Your task to perform on an android device: What's the weather today? Image 0: 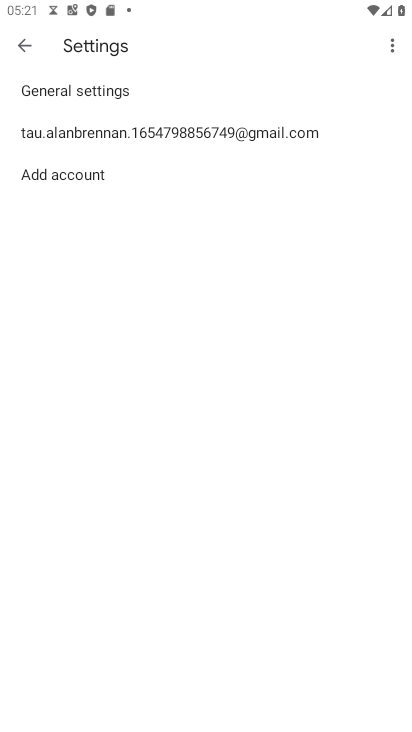
Step 0: press home button
Your task to perform on an android device: What's the weather today? Image 1: 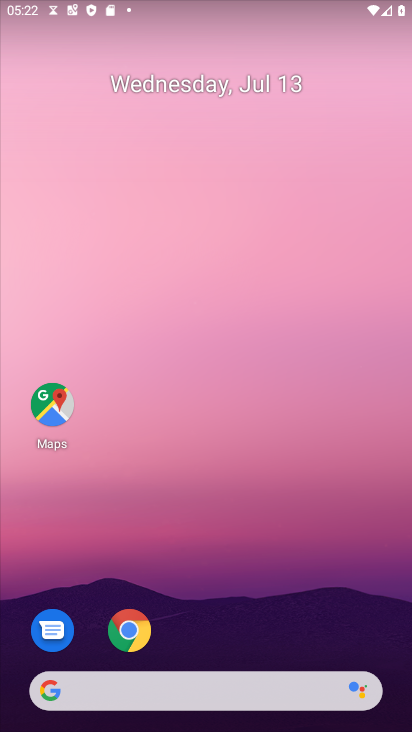
Step 1: drag from (189, 622) to (191, 259)
Your task to perform on an android device: What's the weather today? Image 2: 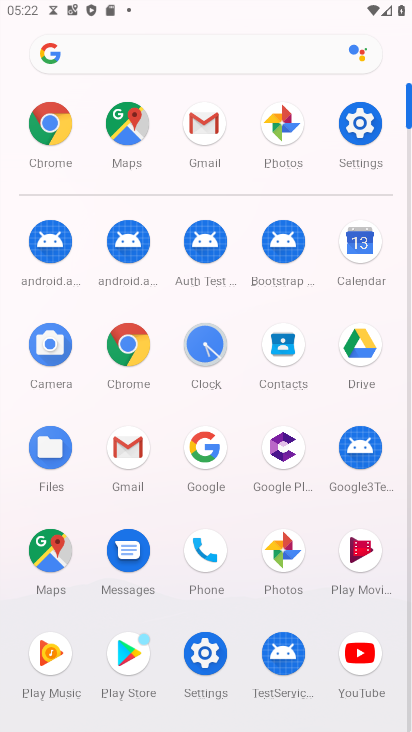
Step 2: click (142, 336)
Your task to perform on an android device: What's the weather today? Image 3: 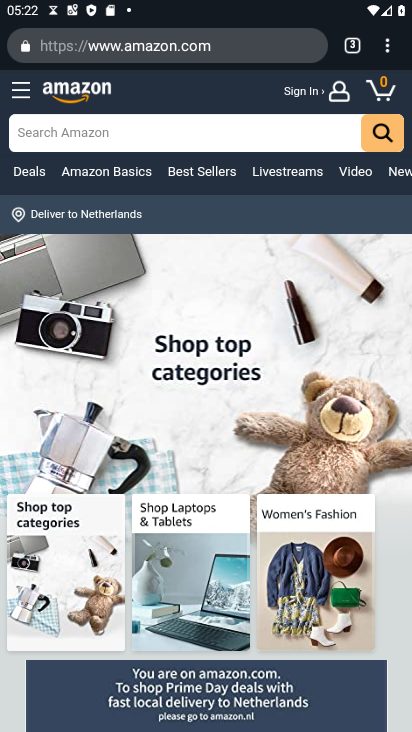
Step 3: click (255, 50)
Your task to perform on an android device: What's the weather today? Image 4: 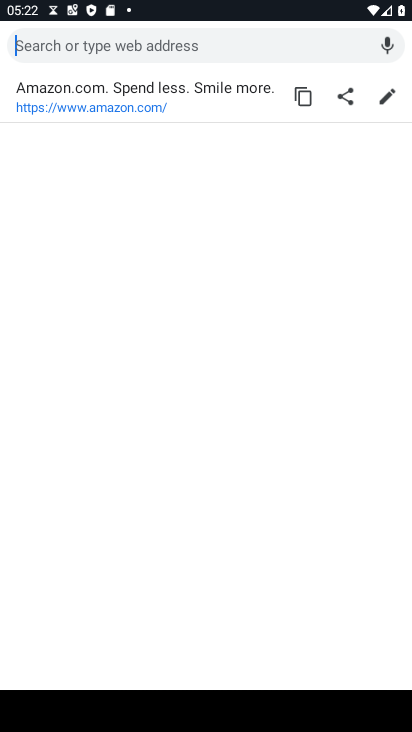
Step 4: type "whats the weather today"
Your task to perform on an android device: What's the weather today? Image 5: 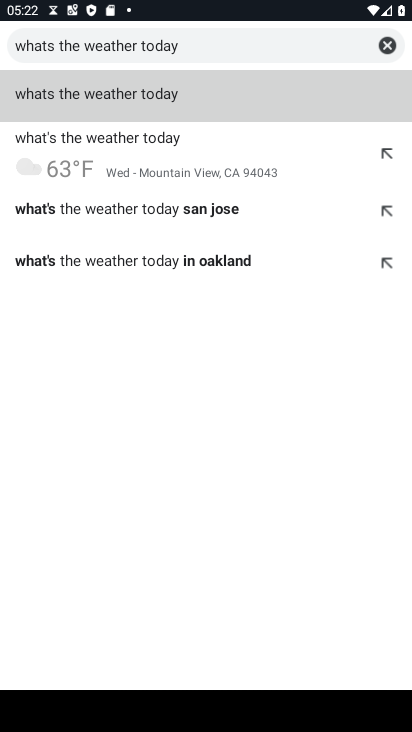
Step 5: click (87, 80)
Your task to perform on an android device: What's the weather today? Image 6: 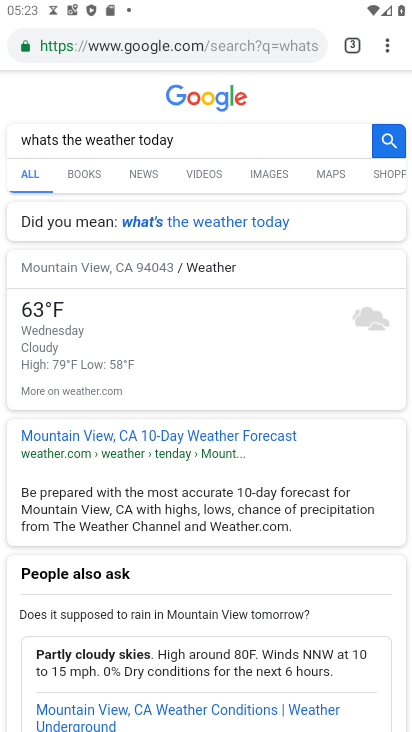
Step 6: task complete